Your task to perform on an android device: toggle pop-ups in chrome Image 0: 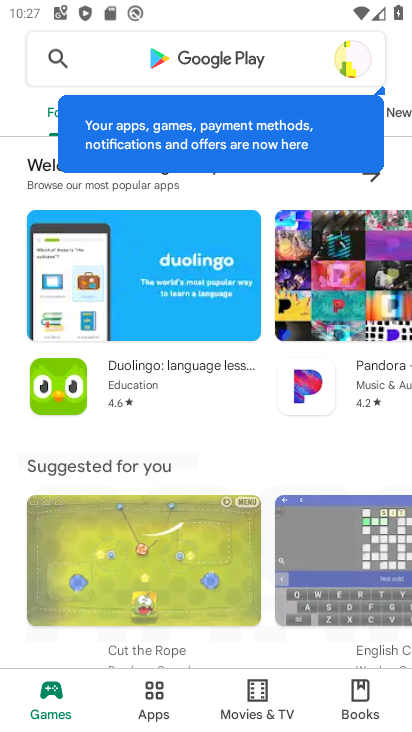
Step 0: press home button
Your task to perform on an android device: toggle pop-ups in chrome Image 1: 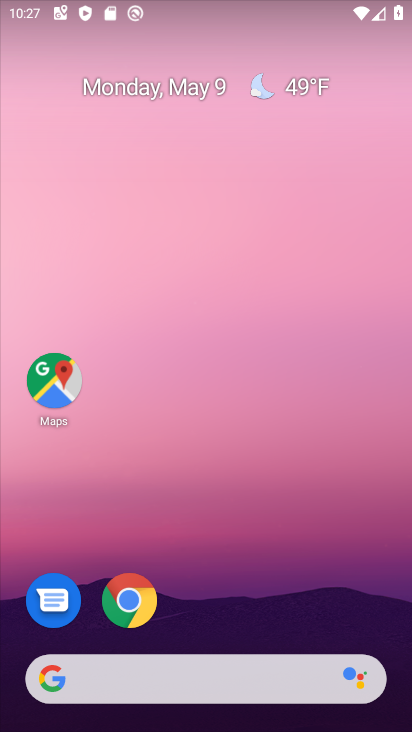
Step 1: drag from (343, 505) to (319, 130)
Your task to perform on an android device: toggle pop-ups in chrome Image 2: 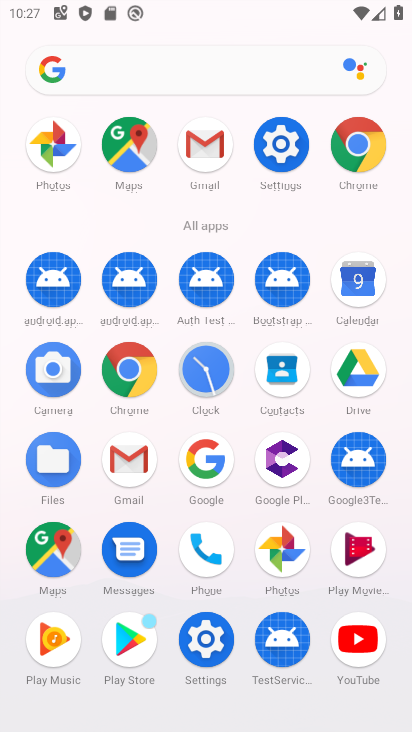
Step 2: click (353, 159)
Your task to perform on an android device: toggle pop-ups in chrome Image 3: 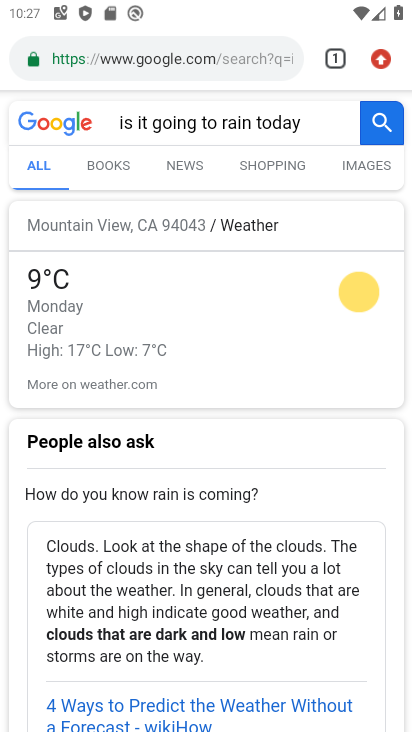
Step 3: drag from (387, 70) to (262, 644)
Your task to perform on an android device: toggle pop-ups in chrome Image 4: 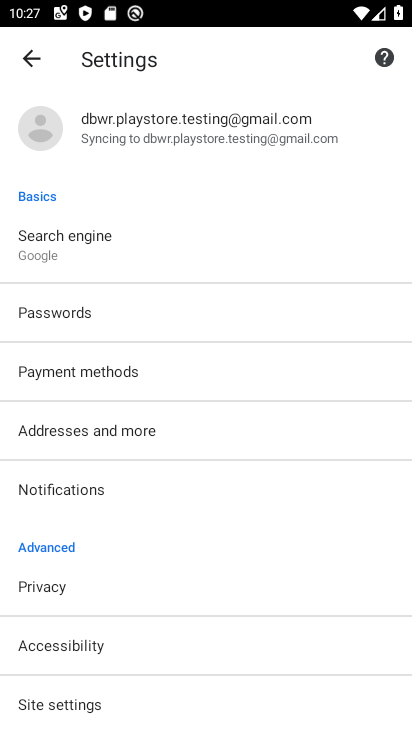
Step 4: drag from (289, 671) to (275, 293)
Your task to perform on an android device: toggle pop-ups in chrome Image 5: 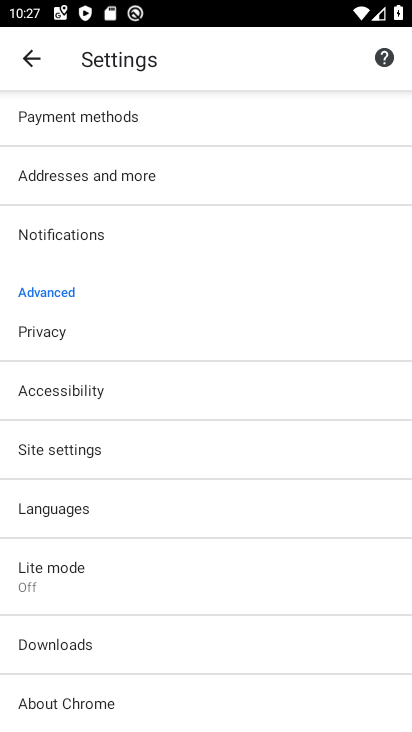
Step 5: drag from (280, 616) to (261, 368)
Your task to perform on an android device: toggle pop-ups in chrome Image 6: 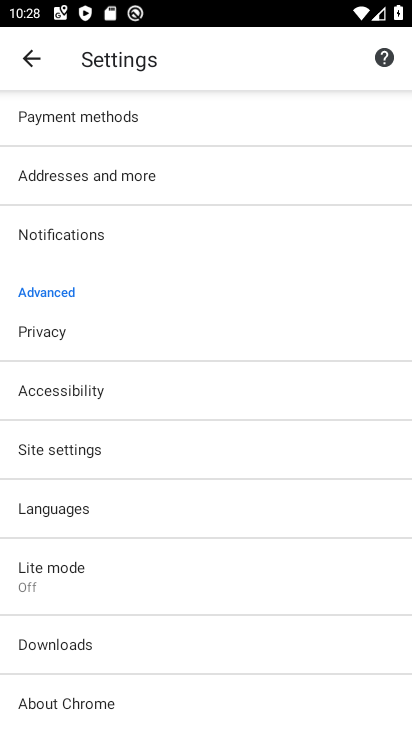
Step 6: click (157, 456)
Your task to perform on an android device: toggle pop-ups in chrome Image 7: 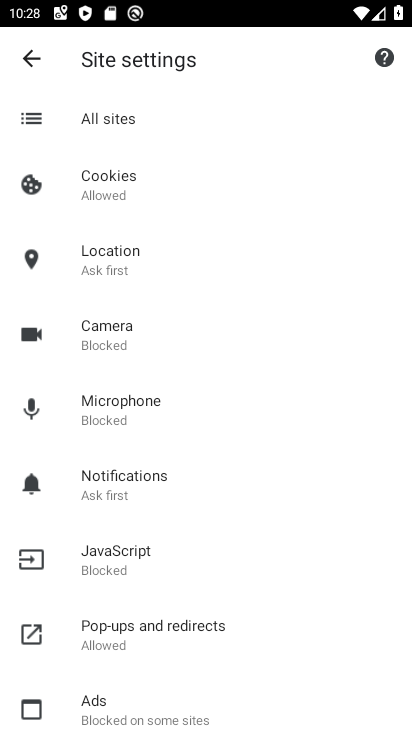
Step 7: drag from (274, 663) to (263, 460)
Your task to perform on an android device: toggle pop-ups in chrome Image 8: 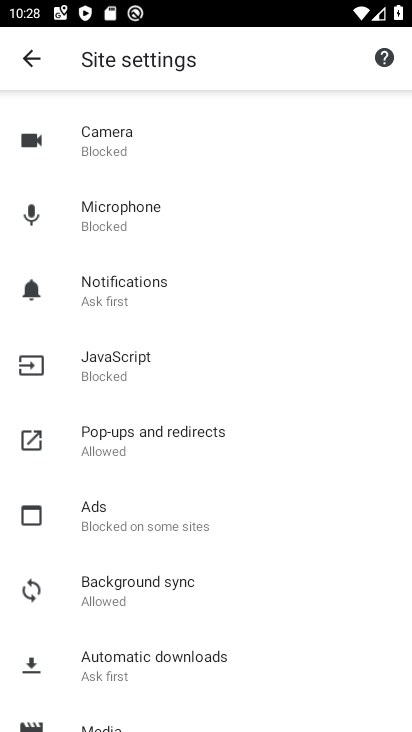
Step 8: click (250, 426)
Your task to perform on an android device: toggle pop-ups in chrome Image 9: 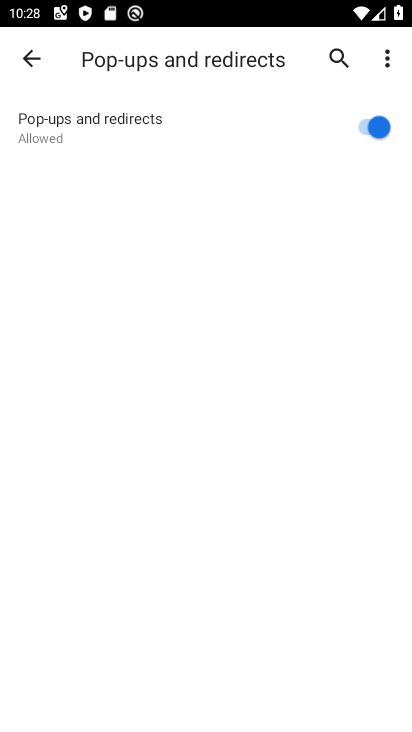
Step 9: click (361, 130)
Your task to perform on an android device: toggle pop-ups in chrome Image 10: 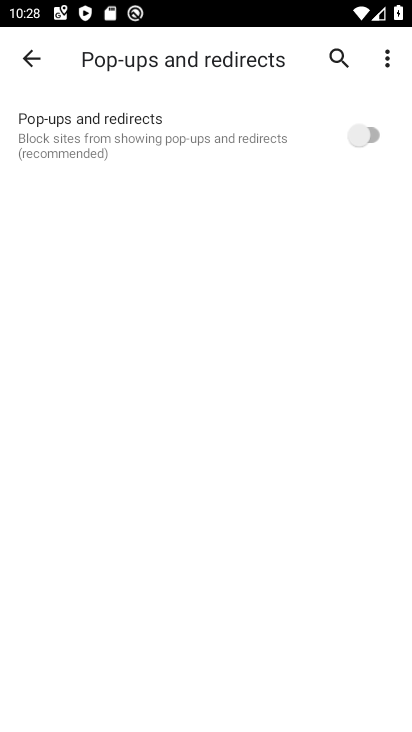
Step 10: task complete